Your task to perform on an android device: manage bookmarks in the chrome app Image 0: 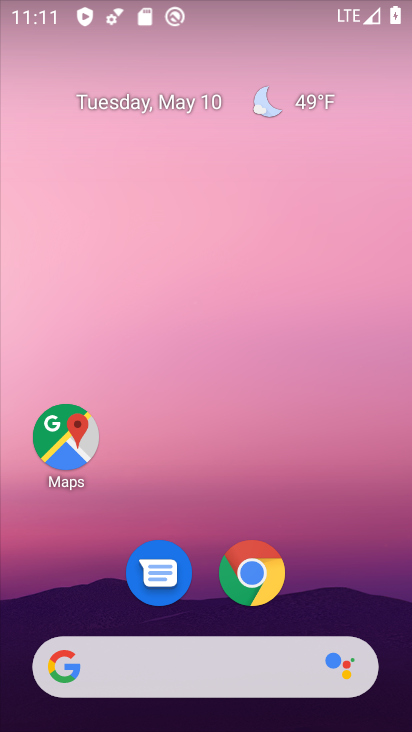
Step 0: press home button
Your task to perform on an android device: manage bookmarks in the chrome app Image 1: 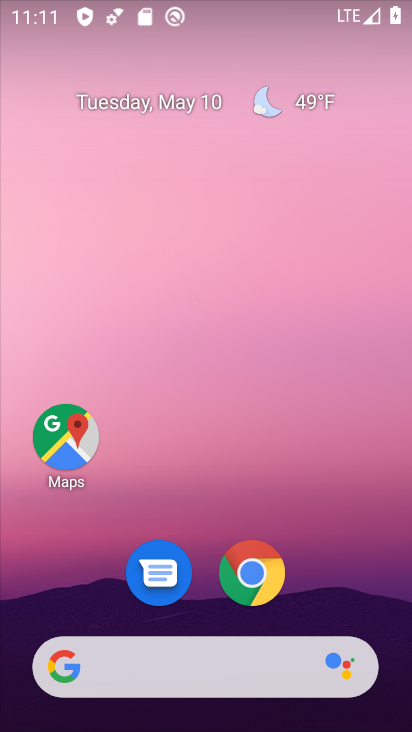
Step 1: drag from (190, 632) to (331, 176)
Your task to perform on an android device: manage bookmarks in the chrome app Image 2: 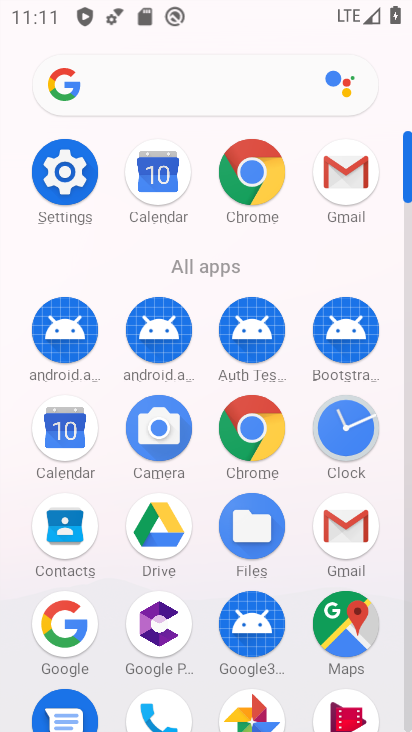
Step 2: click (245, 180)
Your task to perform on an android device: manage bookmarks in the chrome app Image 3: 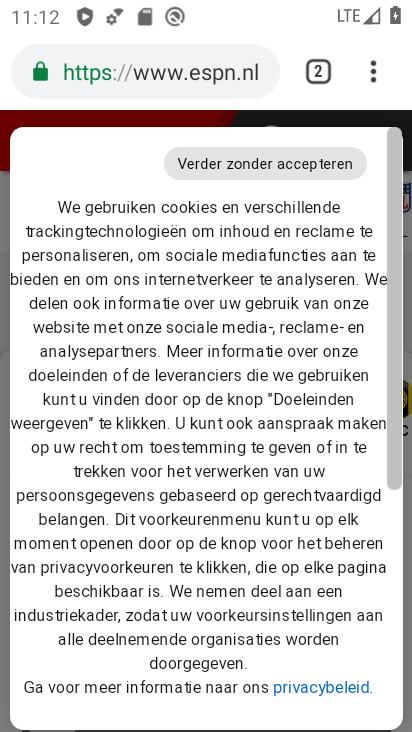
Step 3: drag from (371, 75) to (243, 284)
Your task to perform on an android device: manage bookmarks in the chrome app Image 4: 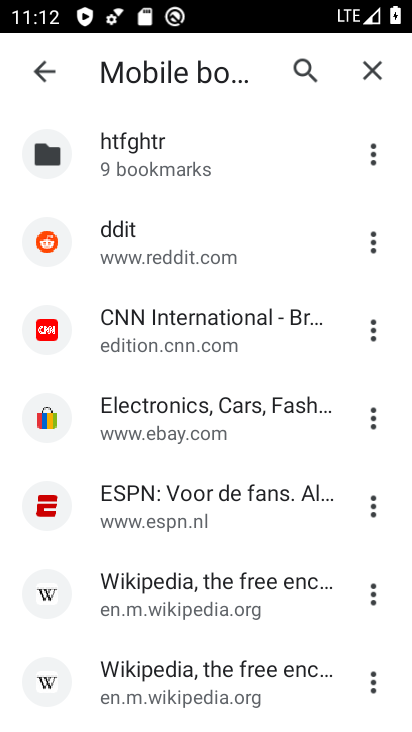
Step 4: click (372, 242)
Your task to perform on an android device: manage bookmarks in the chrome app Image 5: 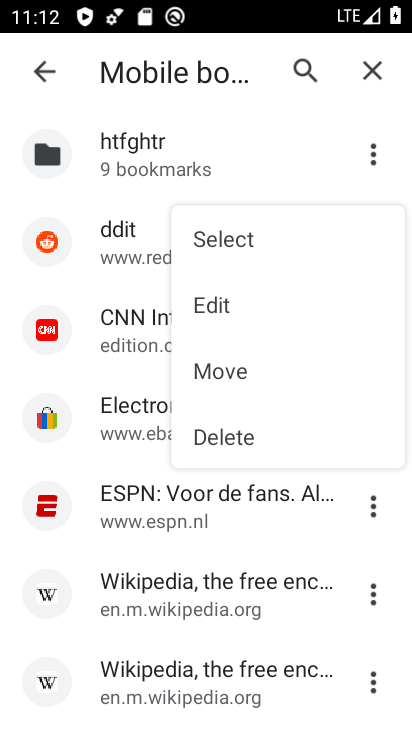
Step 5: click (233, 369)
Your task to perform on an android device: manage bookmarks in the chrome app Image 6: 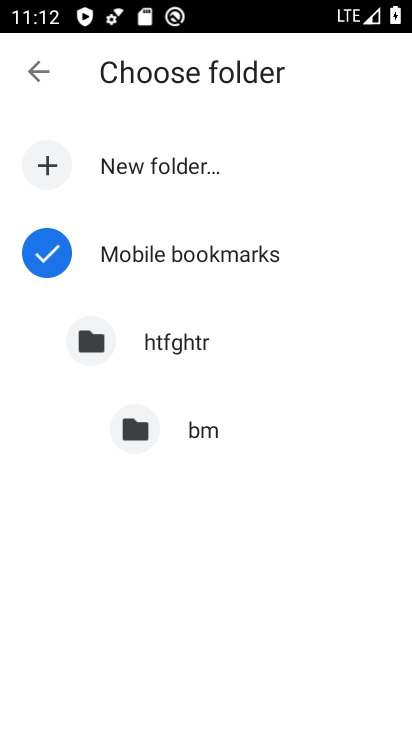
Step 6: click (95, 347)
Your task to perform on an android device: manage bookmarks in the chrome app Image 7: 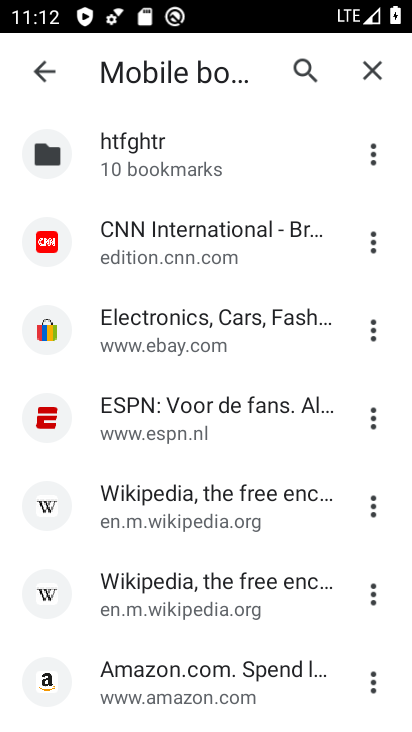
Step 7: task complete